Your task to perform on an android device: open chrome and create a bookmark for the current page Image 0: 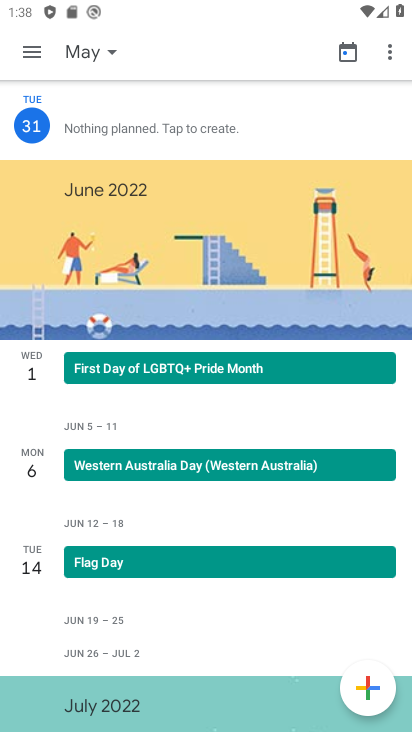
Step 0: press home button
Your task to perform on an android device: open chrome and create a bookmark for the current page Image 1: 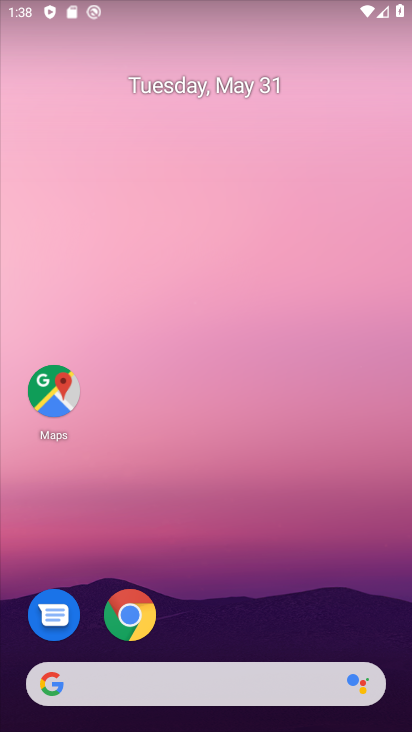
Step 1: click (123, 620)
Your task to perform on an android device: open chrome and create a bookmark for the current page Image 2: 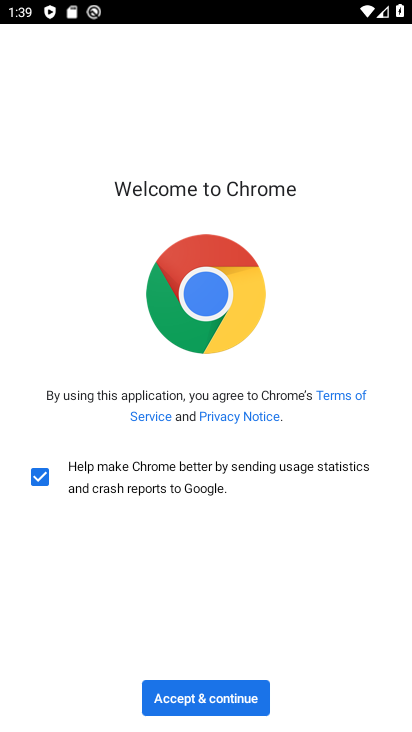
Step 2: click (213, 685)
Your task to perform on an android device: open chrome and create a bookmark for the current page Image 3: 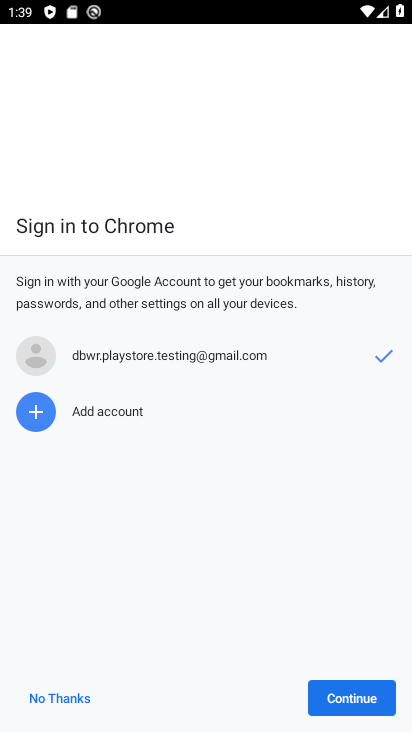
Step 3: click (213, 685)
Your task to perform on an android device: open chrome and create a bookmark for the current page Image 4: 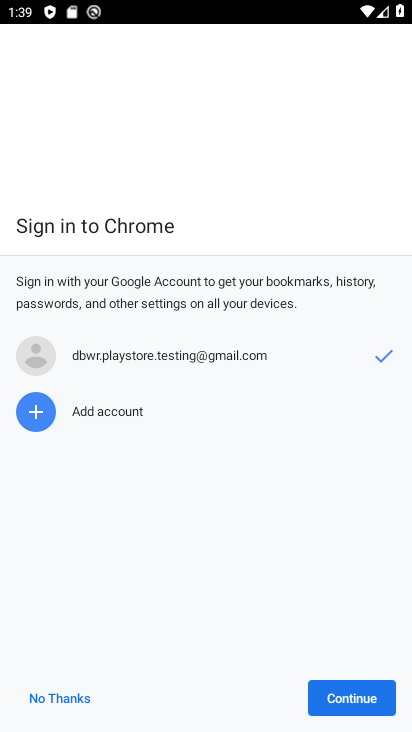
Step 4: click (334, 711)
Your task to perform on an android device: open chrome and create a bookmark for the current page Image 5: 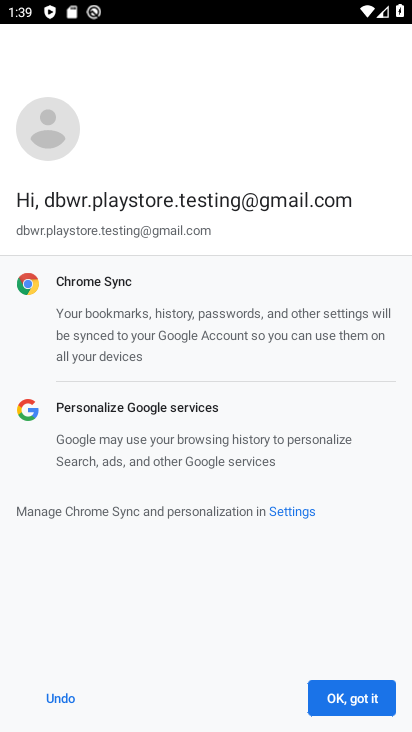
Step 5: click (351, 704)
Your task to perform on an android device: open chrome and create a bookmark for the current page Image 6: 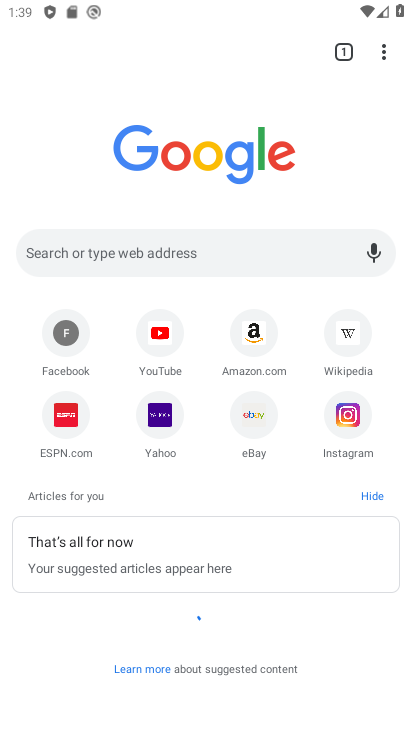
Step 6: click (384, 52)
Your task to perform on an android device: open chrome and create a bookmark for the current page Image 7: 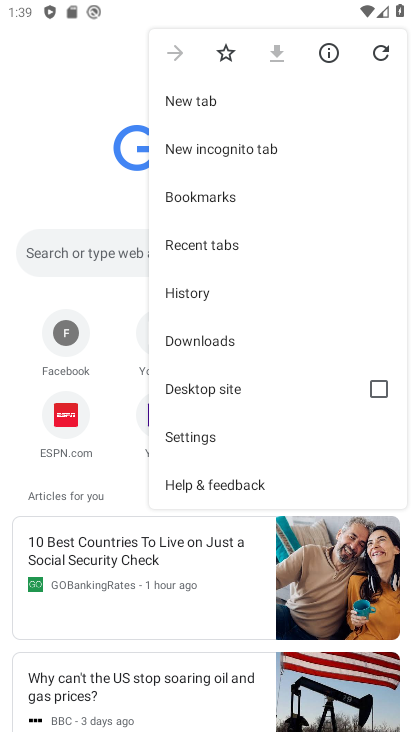
Step 7: click (226, 63)
Your task to perform on an android device: open chrome and create a bookmark for the current page Image 8: 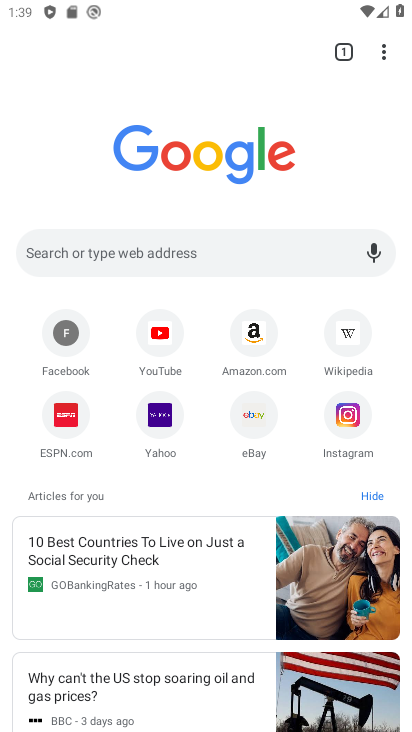
Step 8: task complete